Your task to perform on an android device: turn on the 24-hour format for clock Image 0: 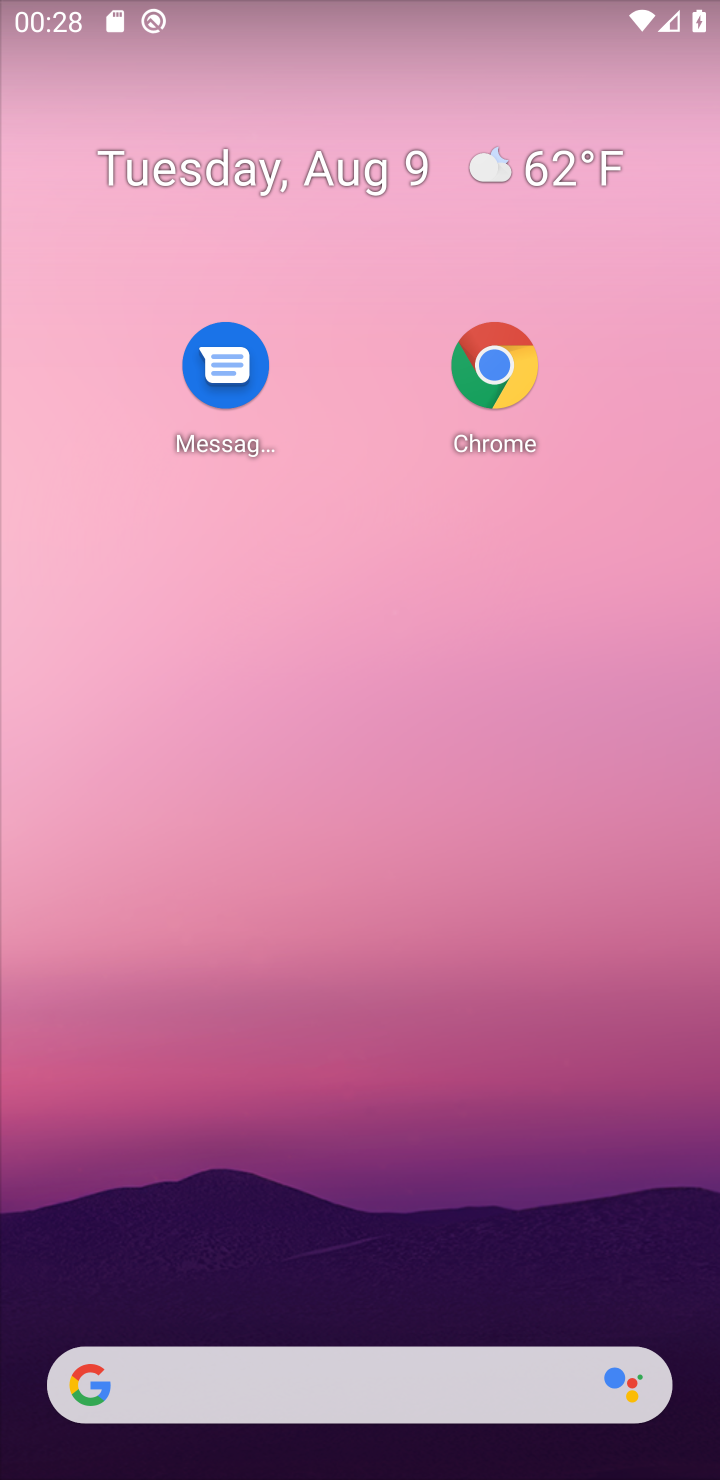
Step 0: drag from (304, 815) to (379, 493)
Your task to perform on an android device: turn on the 24-hour format for clock Image 1: 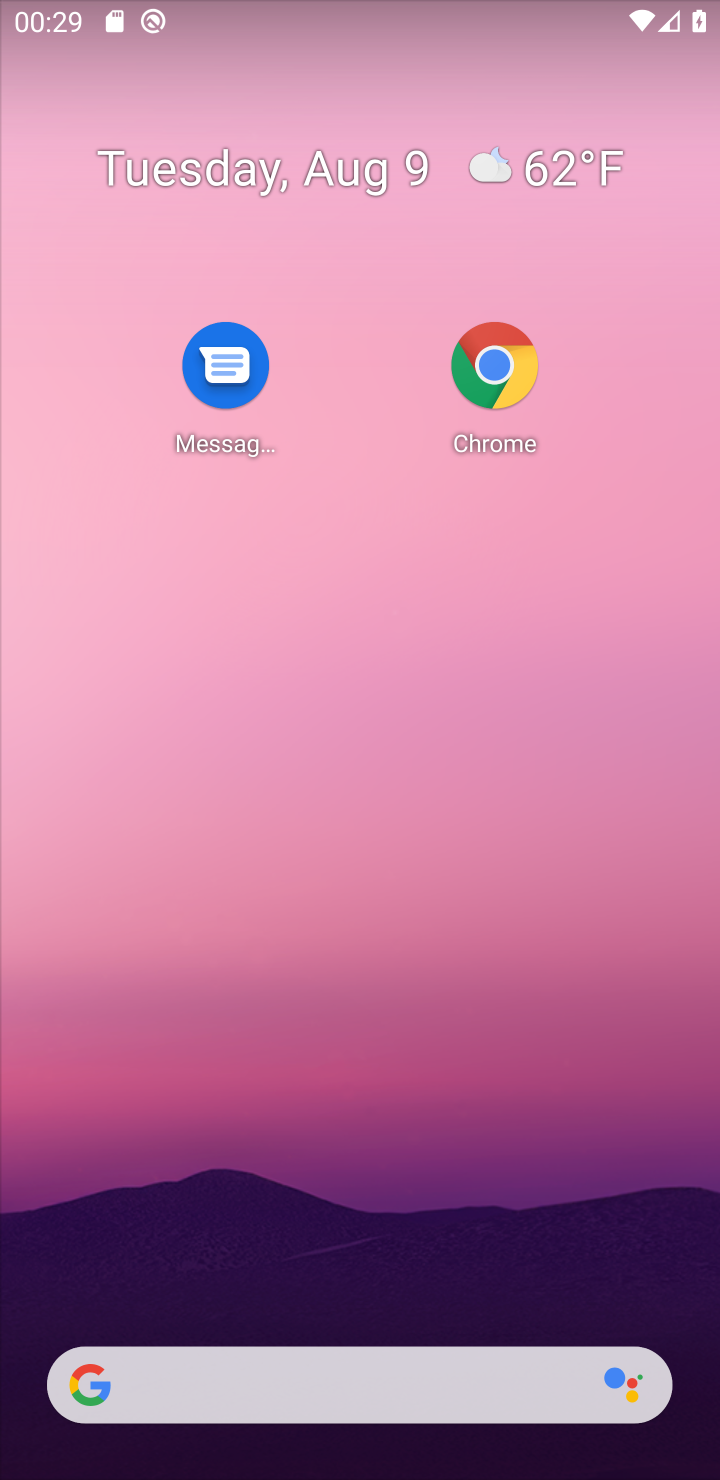
Step 1: drag from (341, 1308) to (343, 517)
Your task to perform on an android device: turn on the 24-hour format for clock Image 2: 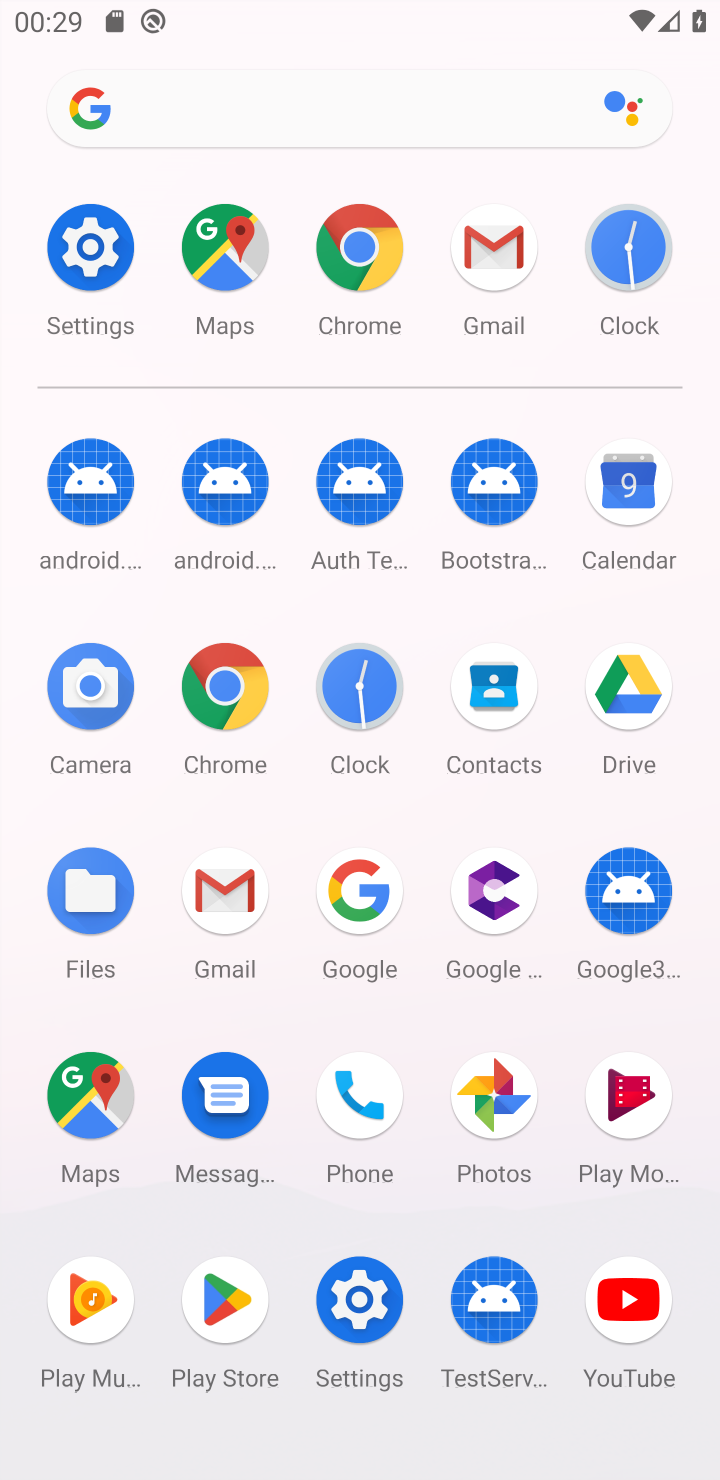
Step 2: click (613, 248)
Your task to perform on an android device: turn on the 24-hour format for clock Image 3: 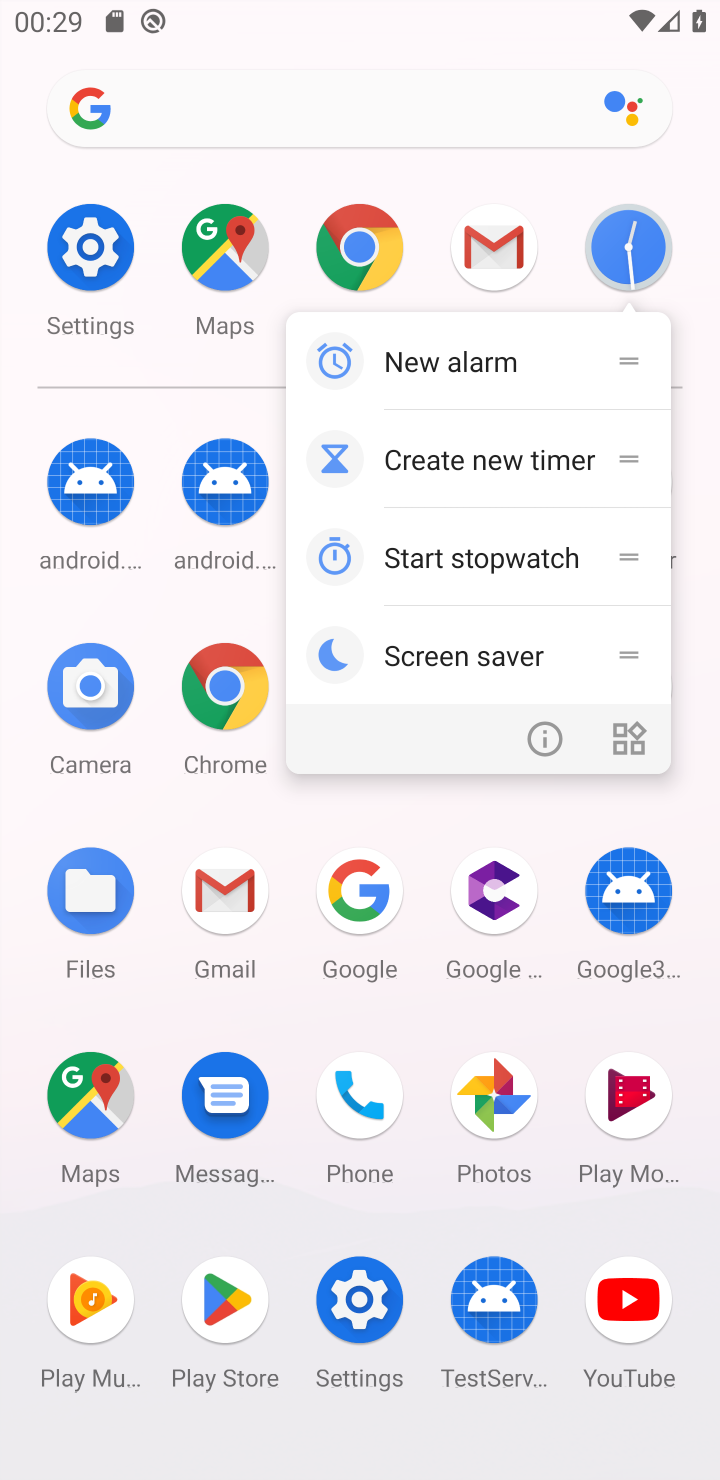
Step 3: click (613, 248)
Your task to perform on an android device: turn on the 24-hour format for clock Image 4: 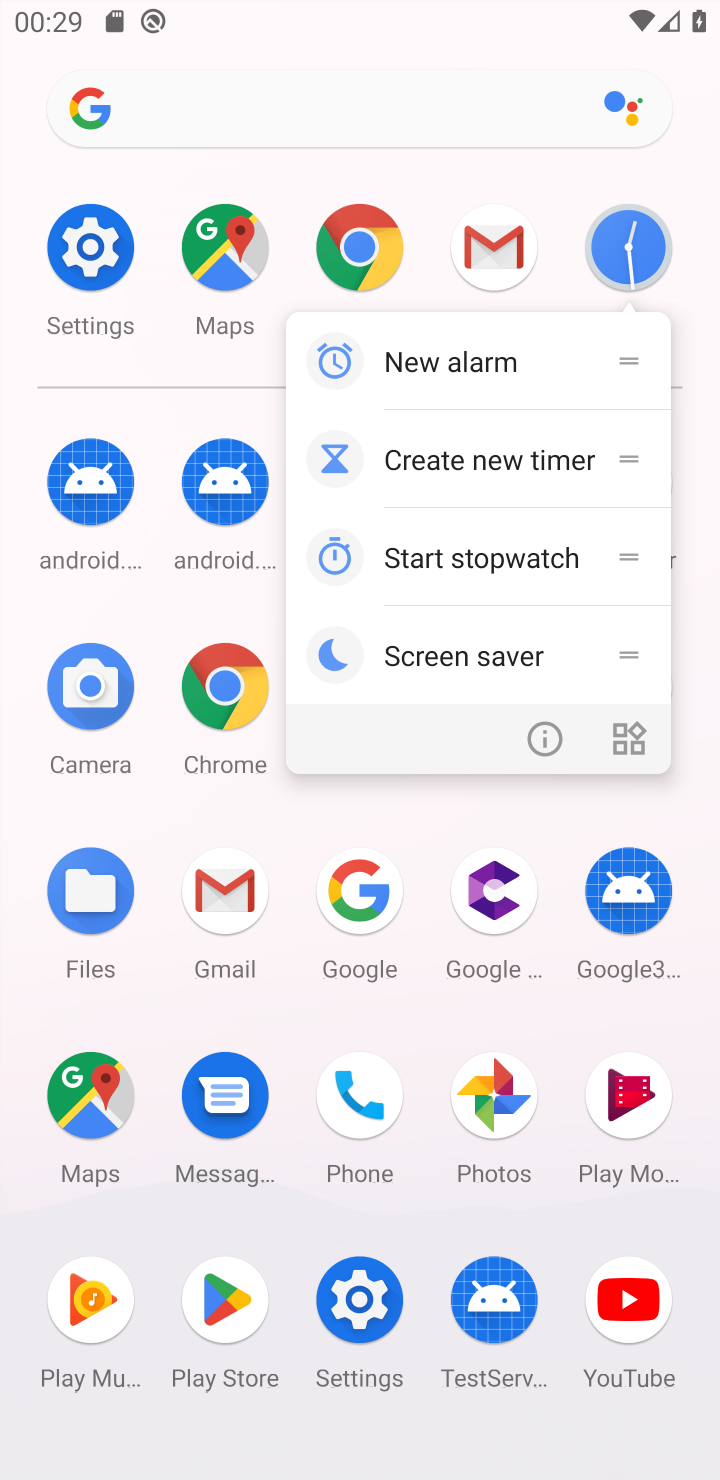
Step 4: click (613, 248)
Your task to perform on an android device: turn on the 24-hour format for clock Image 5: 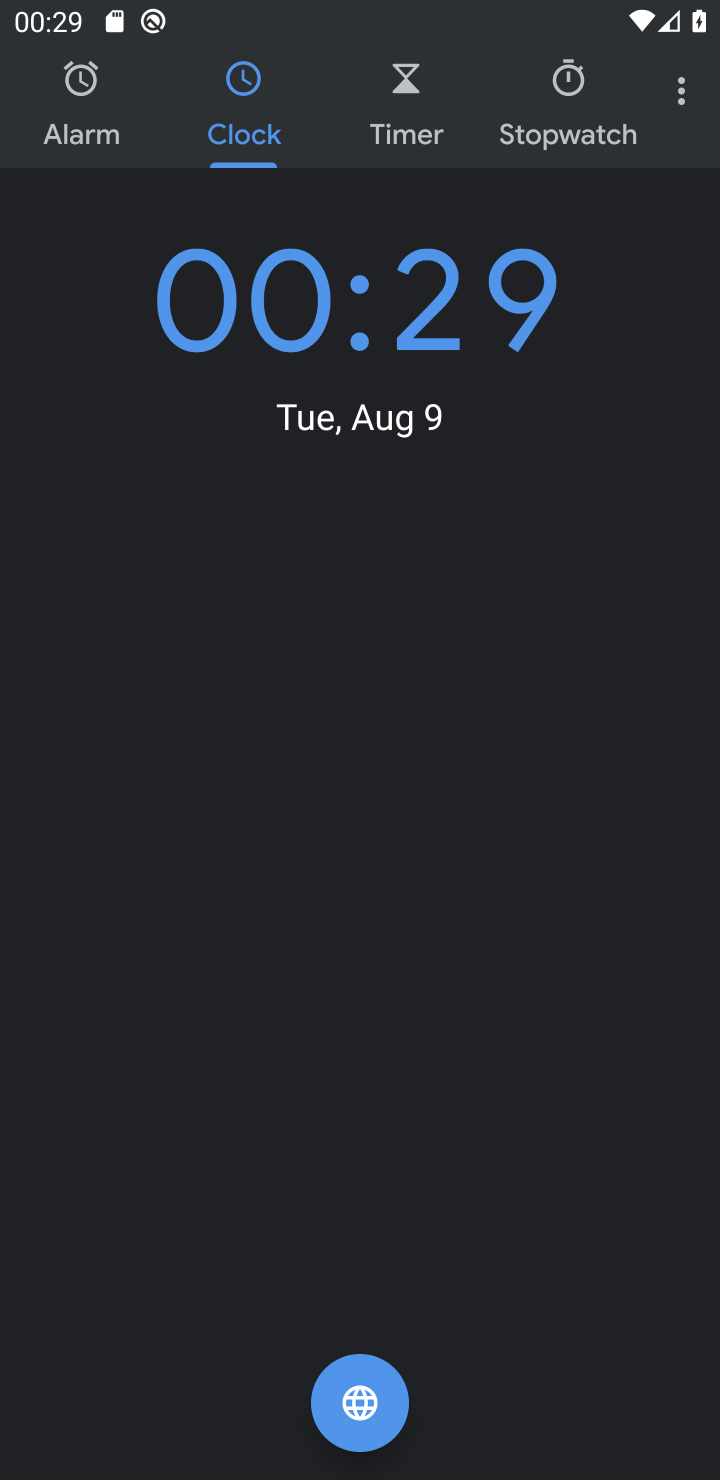
Step 5: click (670, 109)
Your task to perform on an android device: turn on the 24-hour format for clock Image 6: 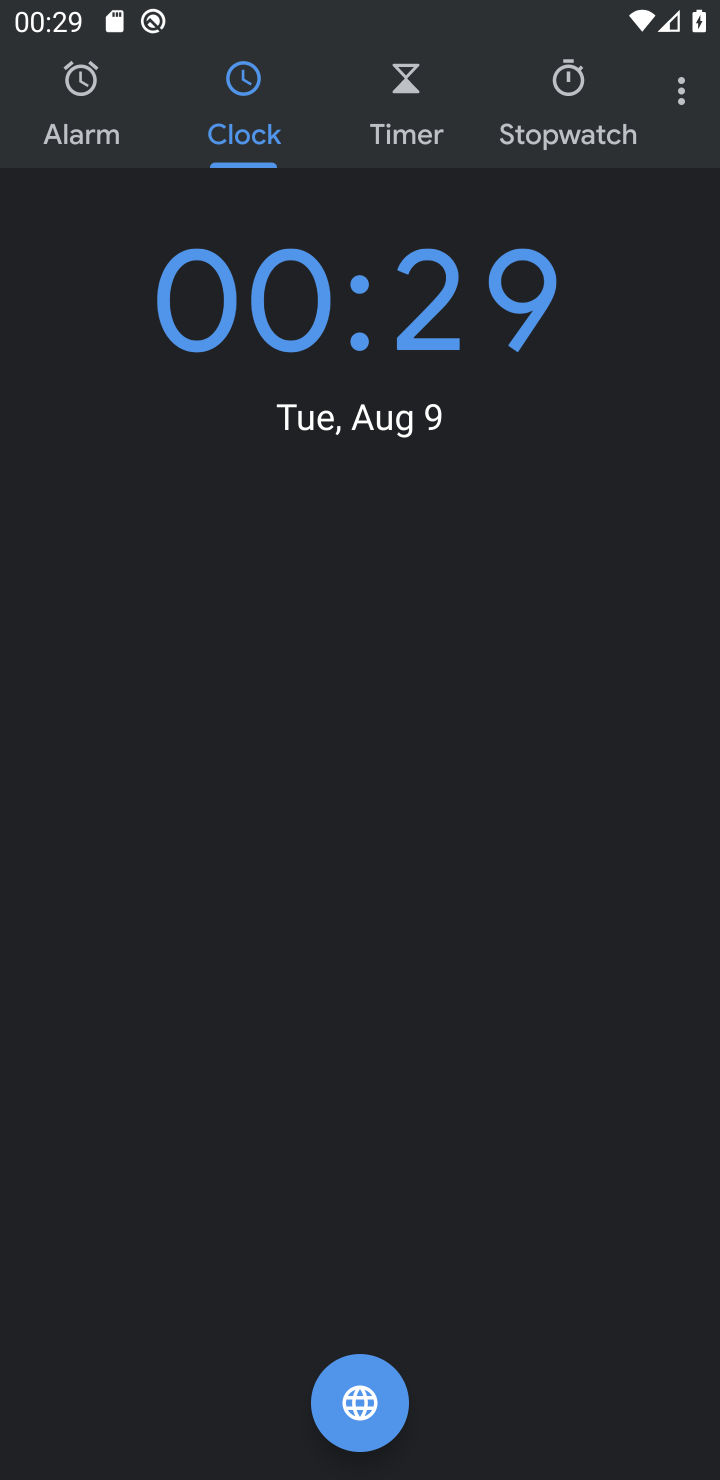
Step 6: click (707, 104)
Your task to perform on an android device: turn on the 24-hour format for clock Image 7: 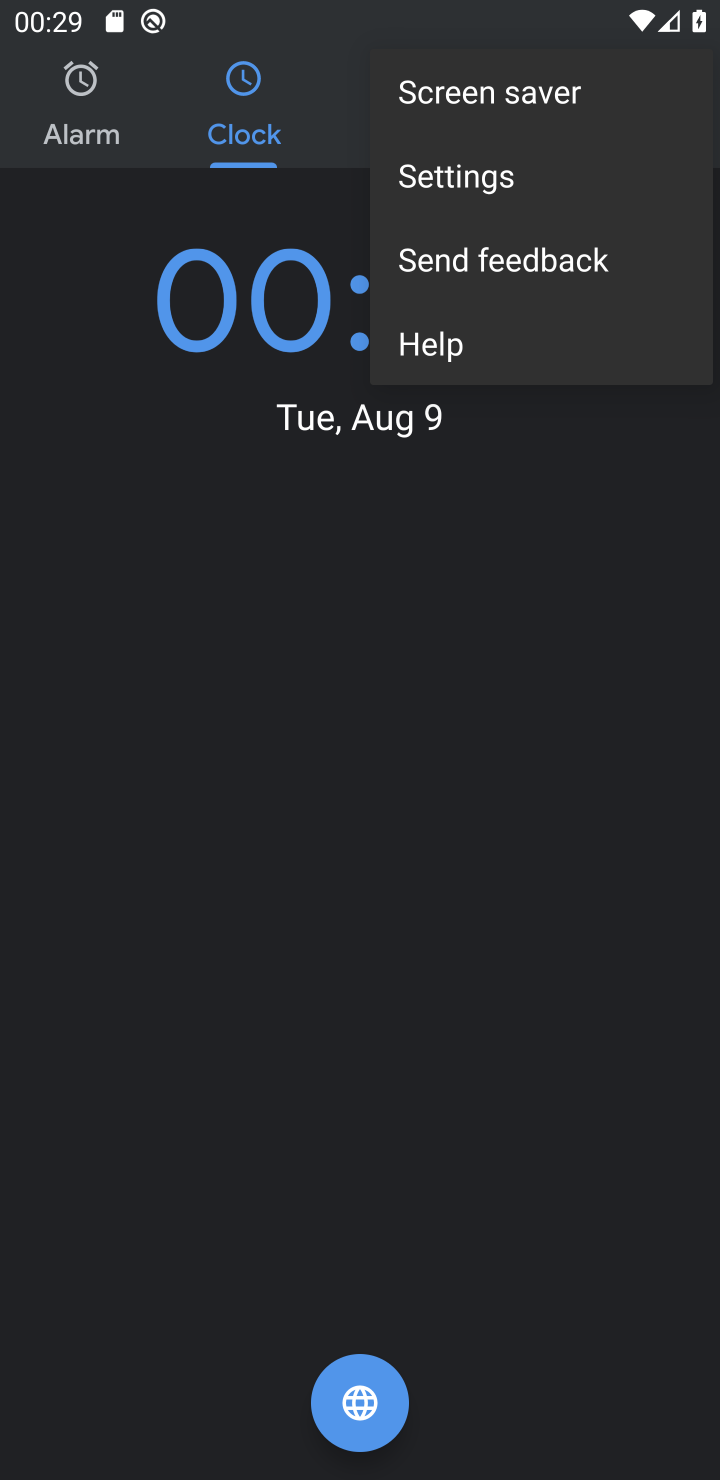
Step 7: click (535, 171)
Your task to perform on an android device: turn on the 24-hour format for clock Image 8: 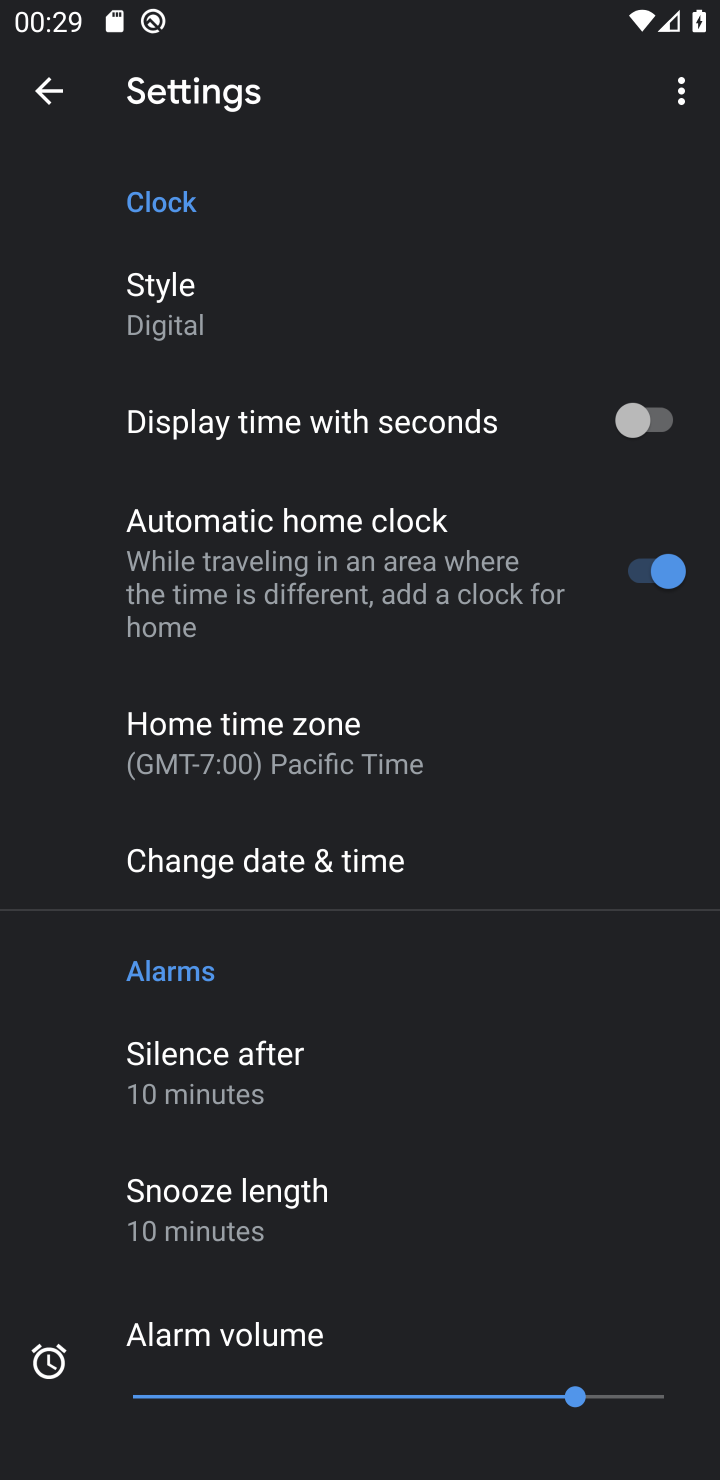
Step 8: click (342, 869)
Your task to perform on an android device: turn on the 24-hour format for clock Image 9: 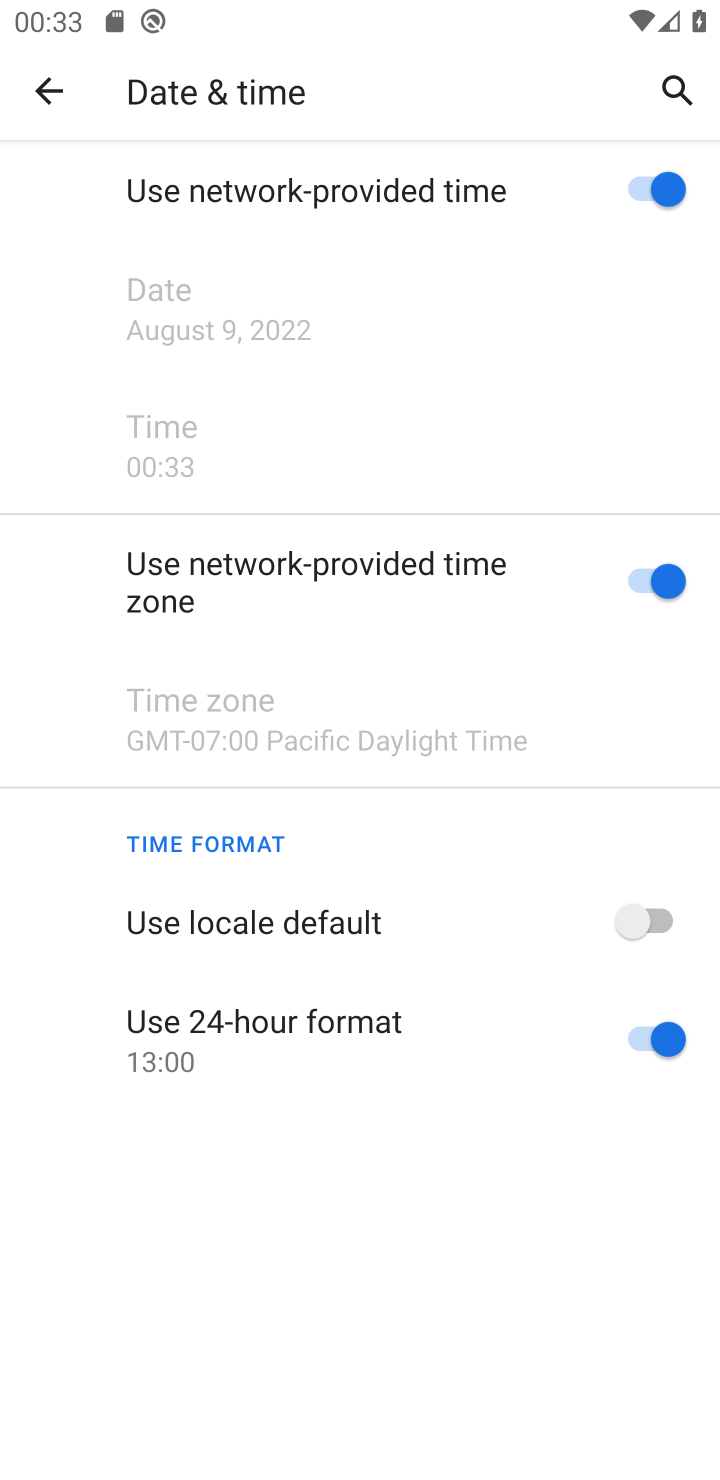
Step 9: task complete